Your task to perform on an android device: Open Google Maps and go to "Timeline" Image 0: 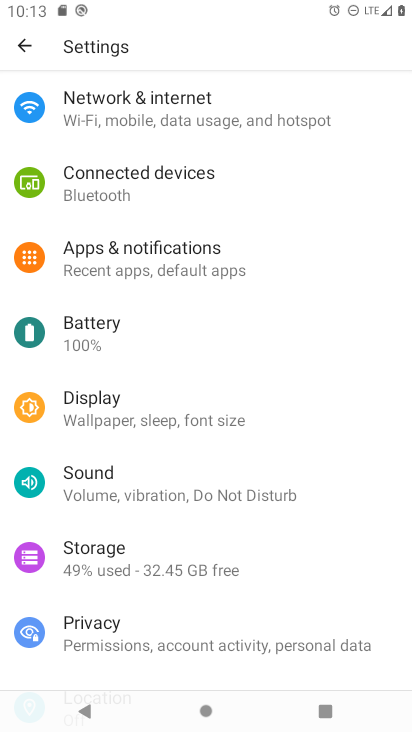
Step 0: press home button
Your task to perform on an android device: Open Google Maps and go to "Timeline" Image 1: 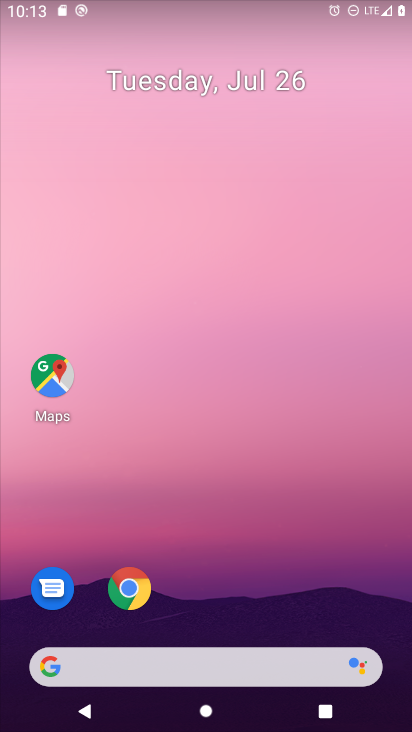
Step 1: drag from (229, 665) to (245, 228)
Your task to perform on an android device: Open Google Maps and go to "Timeline" Image 2: 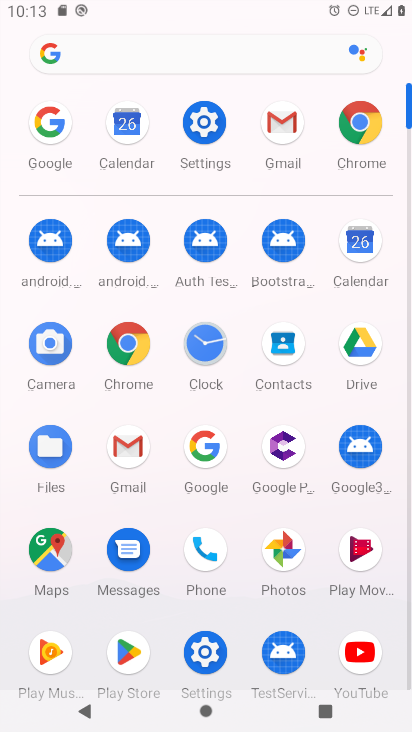
Step 2: click (53, 576)
Your task to perform on an android device: Open Google Maps and go to "Timeline" Image 3: 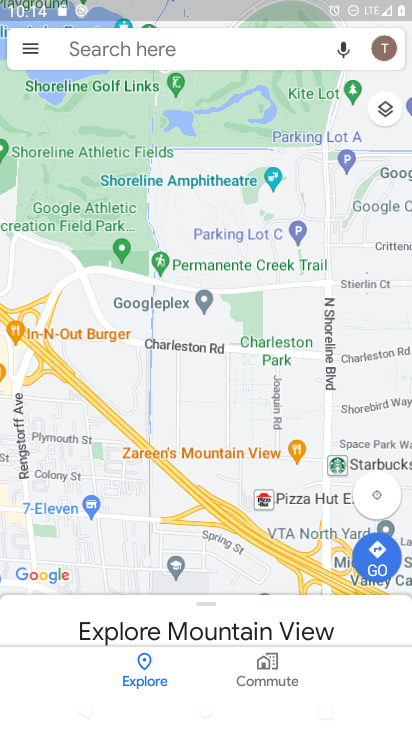
Step 3: click (32, 49)
Your task to perform on an android device: Open Google Maps and go to "Timeline" Image 4: 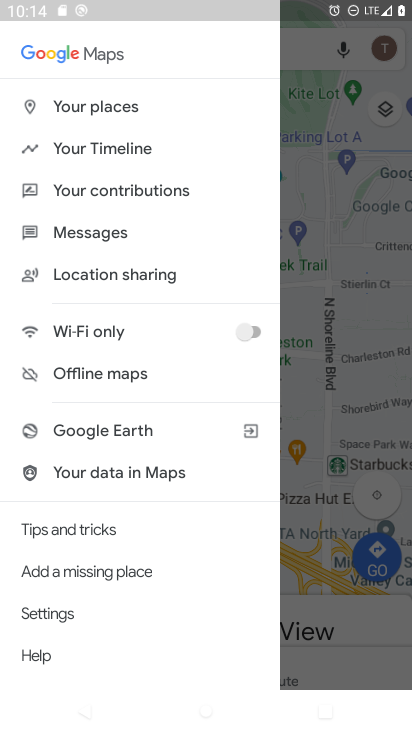
Step 4: click (114, 154)
Your task to perform on an android device: Open Google Maps and go to "Timeline" Image 5: 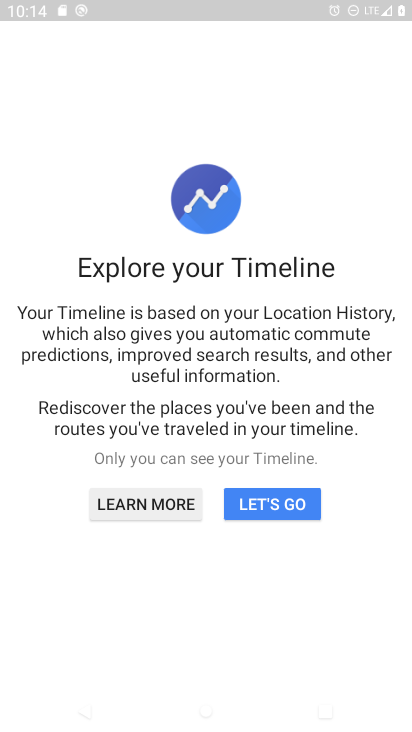
Step 5: click (268, 505)
Your task to perform on an android device: Open Google Maps and go to "Timeline" Image 6: 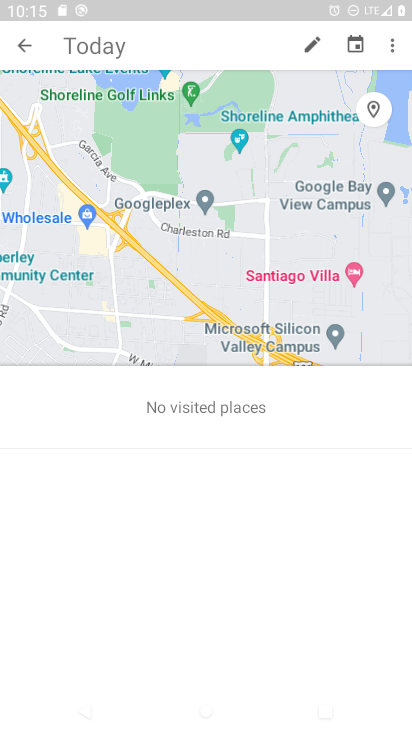
Step 6: task complete